Your task to perform on an android device: Toggle the flashlight Image 0: 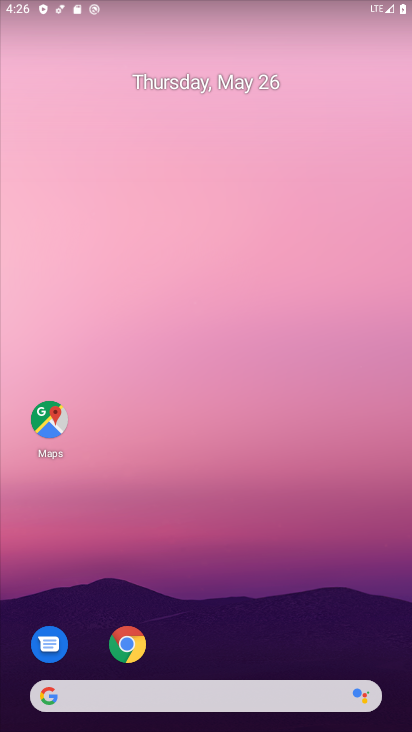
Step 0: drag from (331, 544) to (235, 29)
Your task to perform on an android device: Toggle the flashlight Image 1: 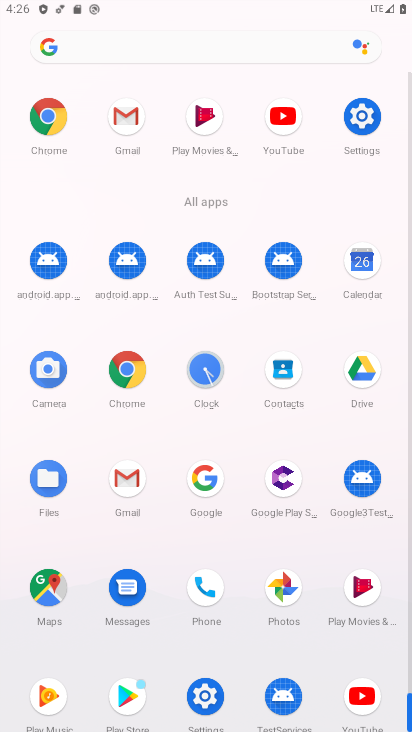
Step 1: click (204, 697)
Your task to perform on an android device: Toggle the flashlight Image 2: 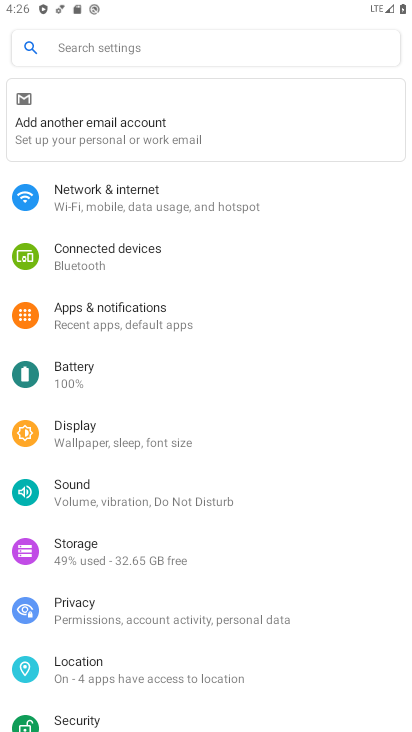
Step 2: click (121, 200)
Your task to perform on an android device: Toggle the flashlight Image 3: 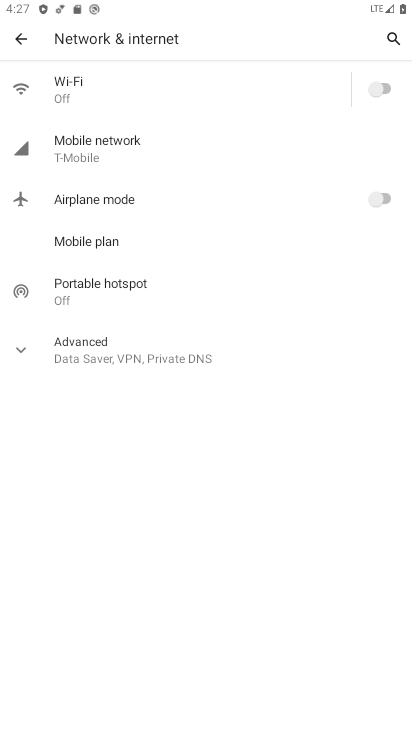
Step 3: click (20, 348)
Your task to perform on an android device: Toggle the flashlight Image 4: 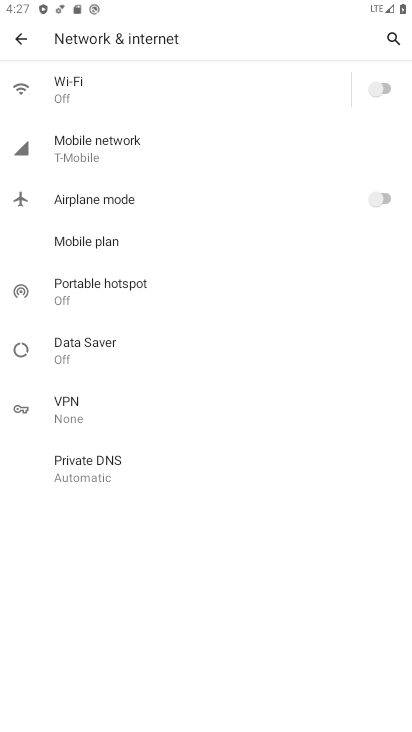
Step 4: press back button
Your task to perform on an android device: Toggle the flashlight Image 5: 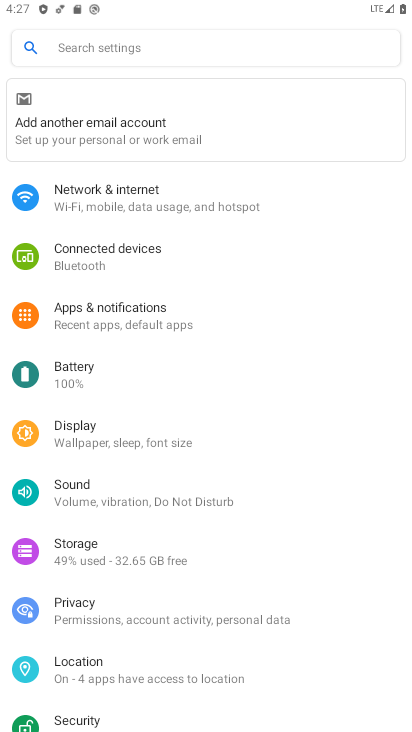
Step 5: click (242, 216)
Your task to perform on an android device: Toggle the flashlight Image 6: 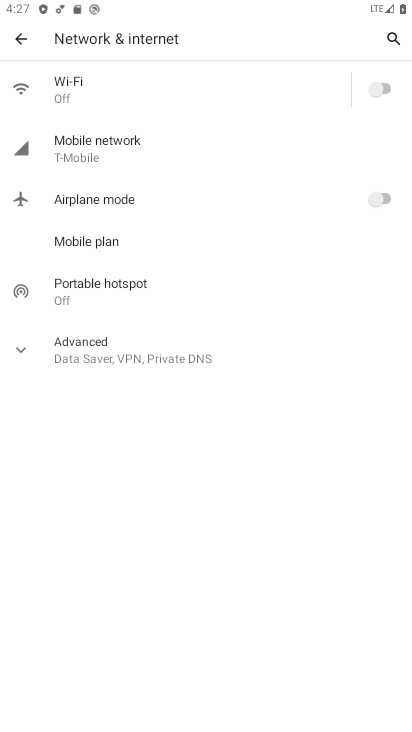
Step 6: click (15, 348)
Your task to perform on an android device: Toggle the flashlight Image 7: 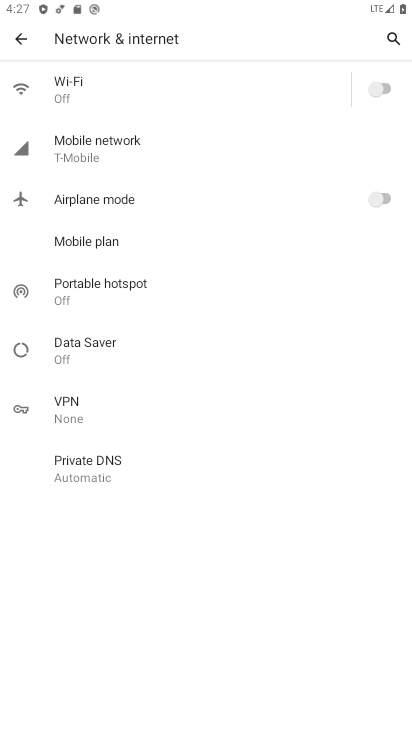
Step 7: task complete